Your task to perform on an android device: Open notification settings Image 0: 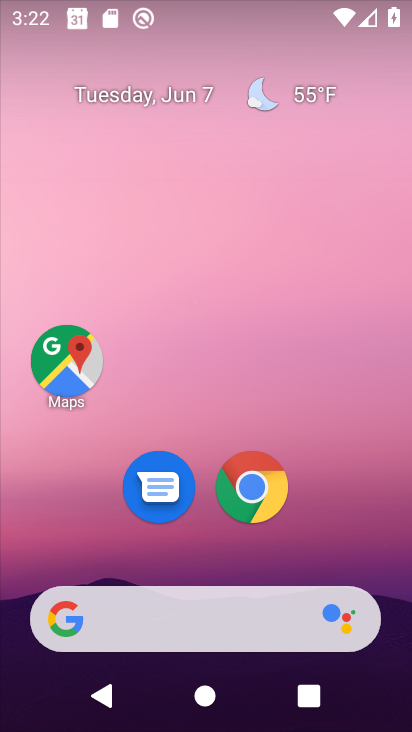
Step 0: drag from (206, 497) to (204, 113)
Your task to perform on an android device: Open notification settings Image 1: 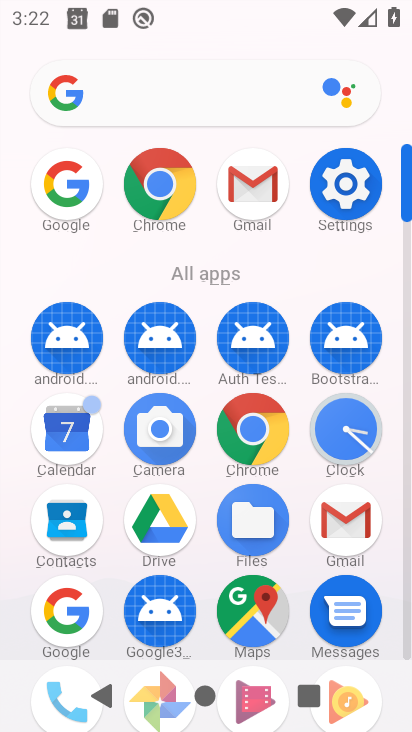
Step 1: click (340, 180)
Your task to perform on an android device: Open notification settings Image 2: 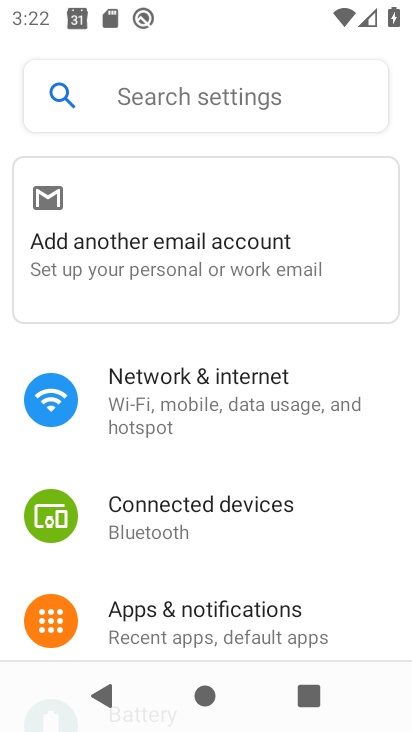
Step 2: drag from (219, 578) to (223, 353)
Your task to perform on an android device: Open notification settings Image 3: 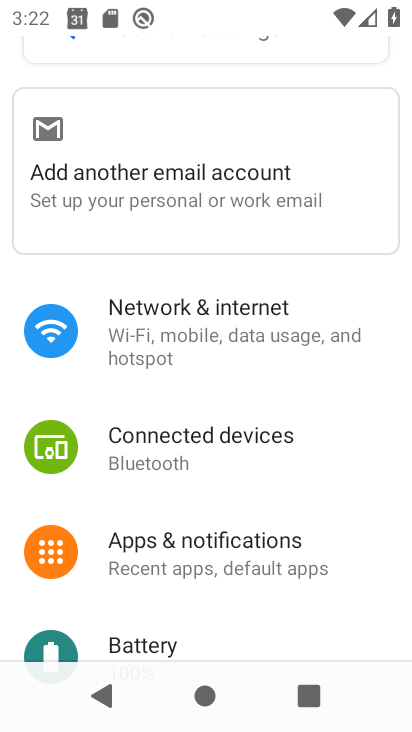
Step 3: click (175, 540)
Your task to perform on an android device: Open notification settings Image 4: 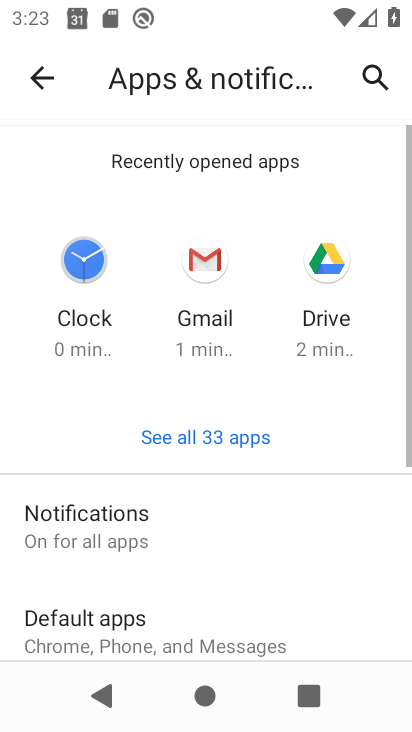
Step 4: click (150, 533)
Your task to perform on an android device: Open notification settings Image 5: 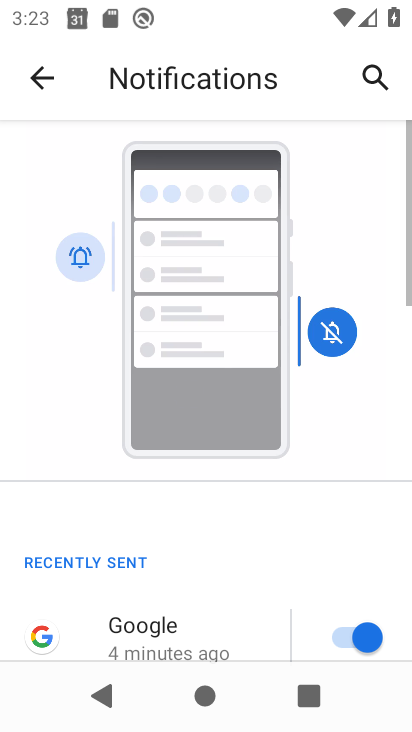
Step 5: task complete